Your task to perform on an android device: turn off sleep mode Image 0: 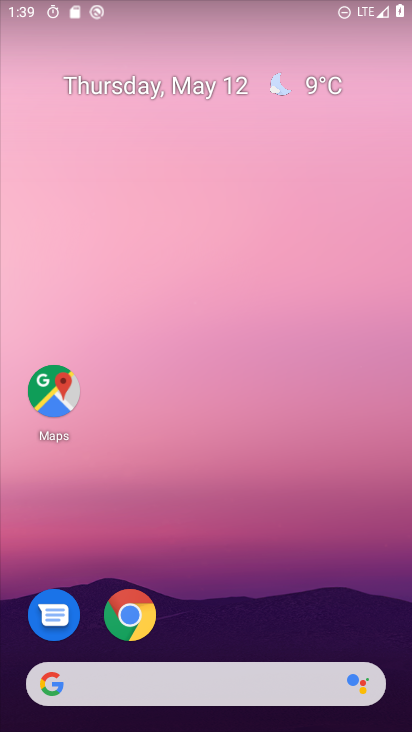
Step 0: drag from (252, 566) to (211, 155)
Your task to perform on an android device: turn off sleep mode Image 1: 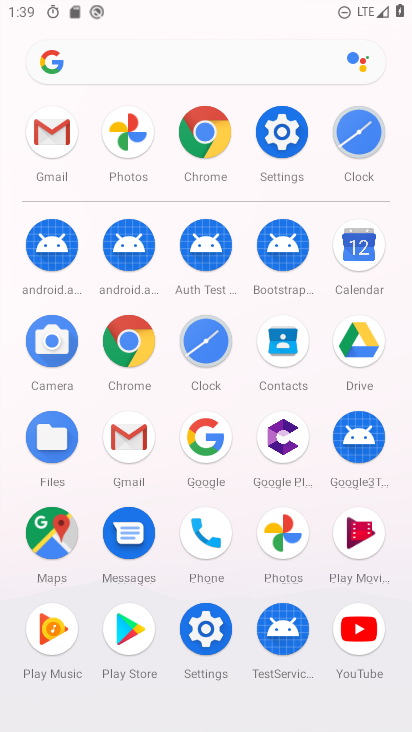
Step 1: click (288, 146)
Your task to perform on an android device: turn off sleep mode Image 2: 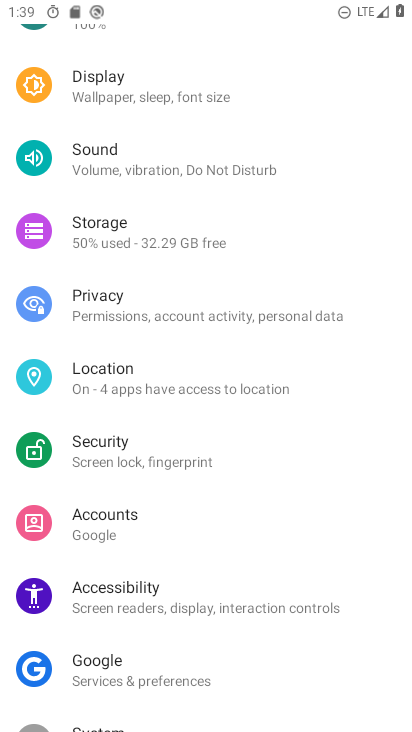
Step 2: drag from (178, 202) to (227, 451)
Your task to perform on an android device: turn off sleep mode Image 3: 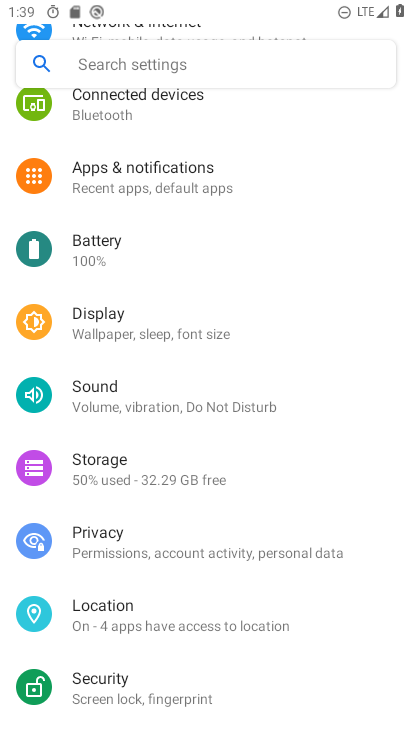
Step 3: click (158, 324)
Your task to perform on an android device: turn off sleep mode Image 4: 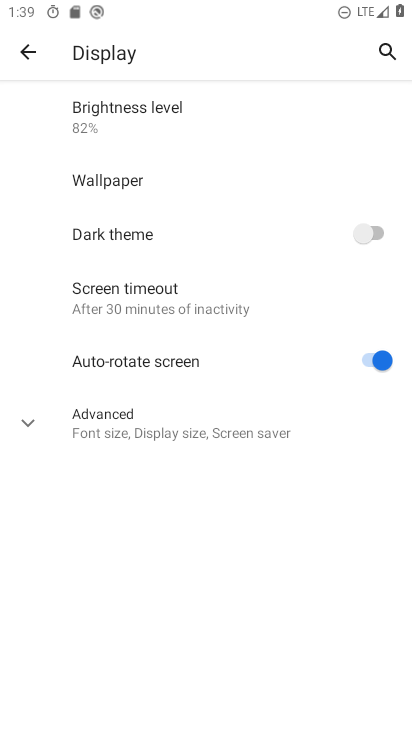
Step 4: click (165, 284)
Your task to perform on an android device: turn off sleep mode Image 5: 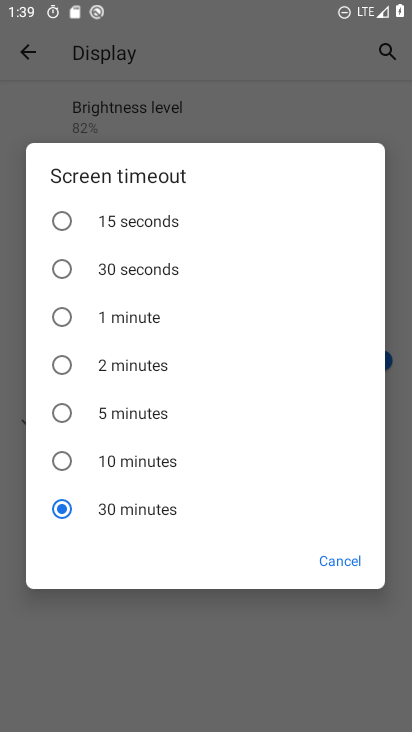
Step 5: task complete